Your task to perform on an android device: View the shopping cart on target.com. Search for usb-b on target.com, select the first entry, add it to the cart, then select checkout. Image 0: 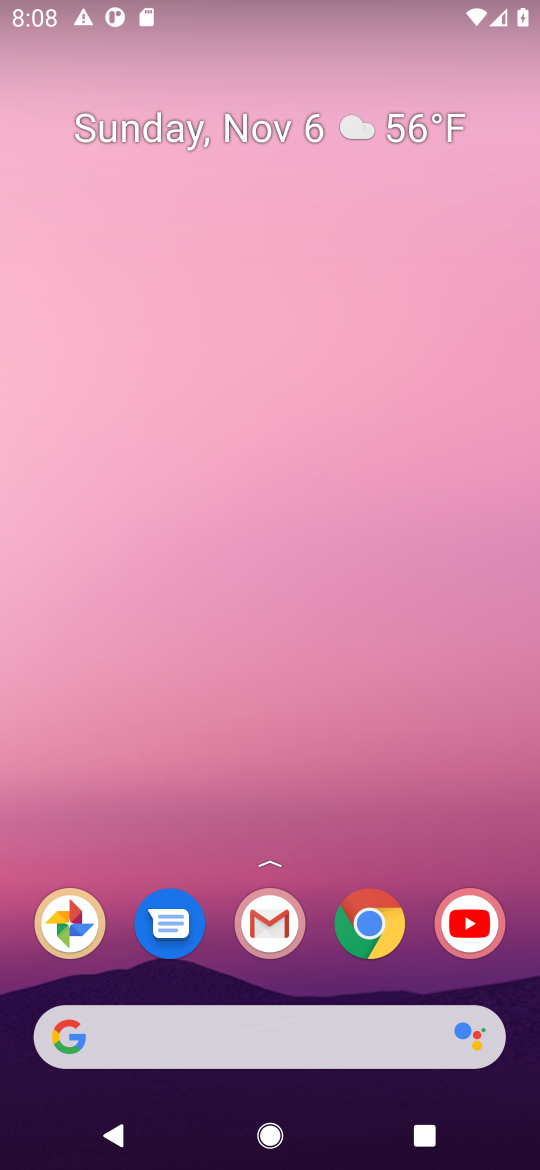
Step 0: click (366, 929)
Your task to perform on an android device: View the shopping cart on target.com. Search for usb-b on target.com, select the first entry, add it to the cart, then select checkout. Image 1: 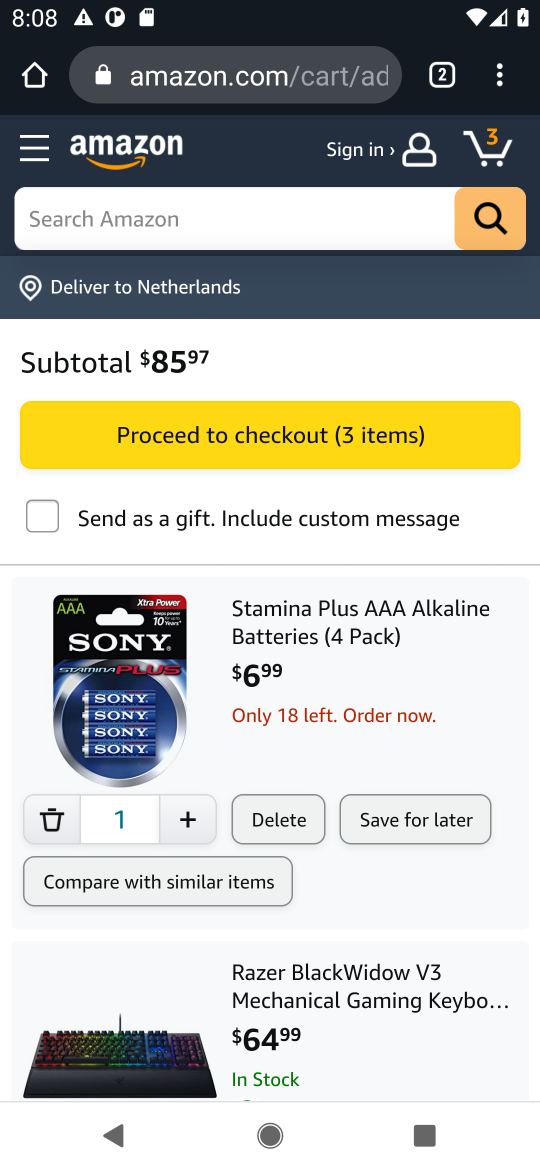
Step 1: click (275, 93)
Your task to perform on an android device: View the shopping cart on target.com. Search for usb-b on target.com, select the first entry, add it to the cart, then select checkout. Image 2: 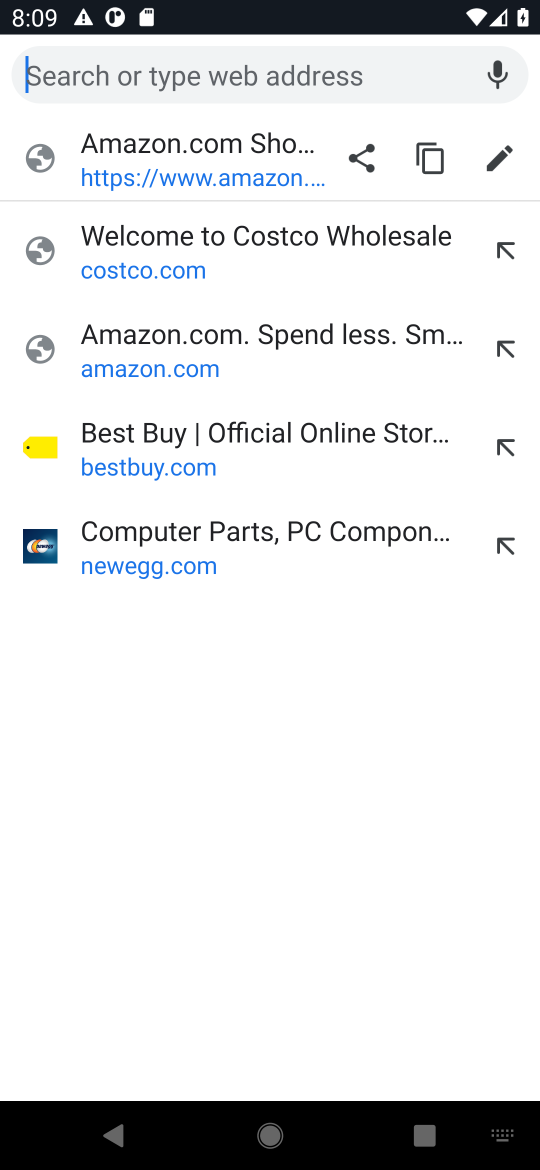
Step 2: type "target.com"
Your task to perform on an android device: View the shopping cart on target.com. Search for usb-b on target.com, select the first entry, add it to the cart, then select checkout. Image 3: 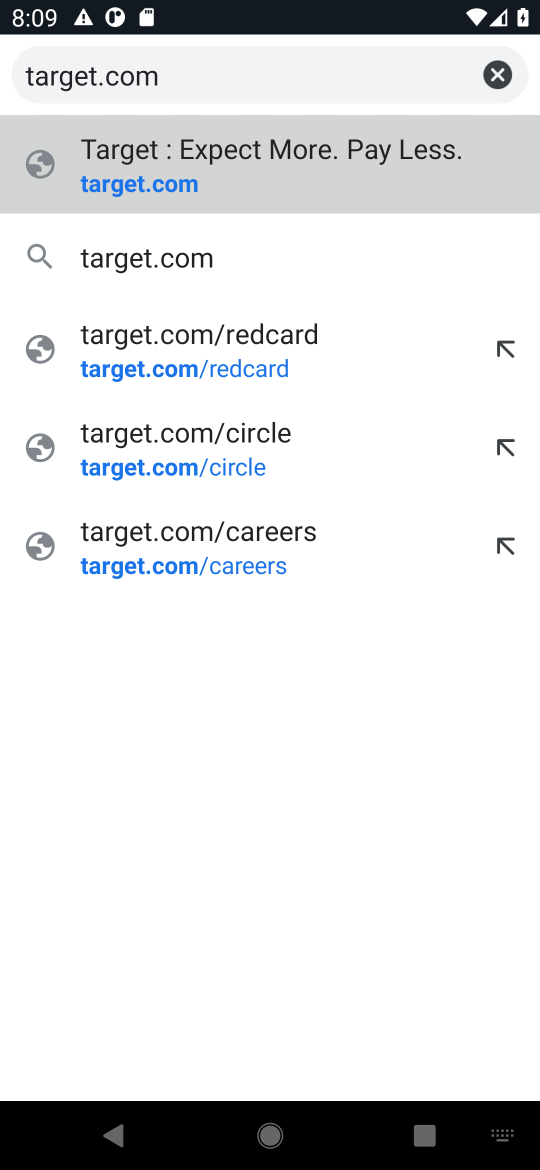
Step 3: click (161, 192)
Your task to perform on an android device: View the shopping cart on target.com. Search for usb-b on target.com, select the first entry, add it to the cart, then select checkout. Image 4: 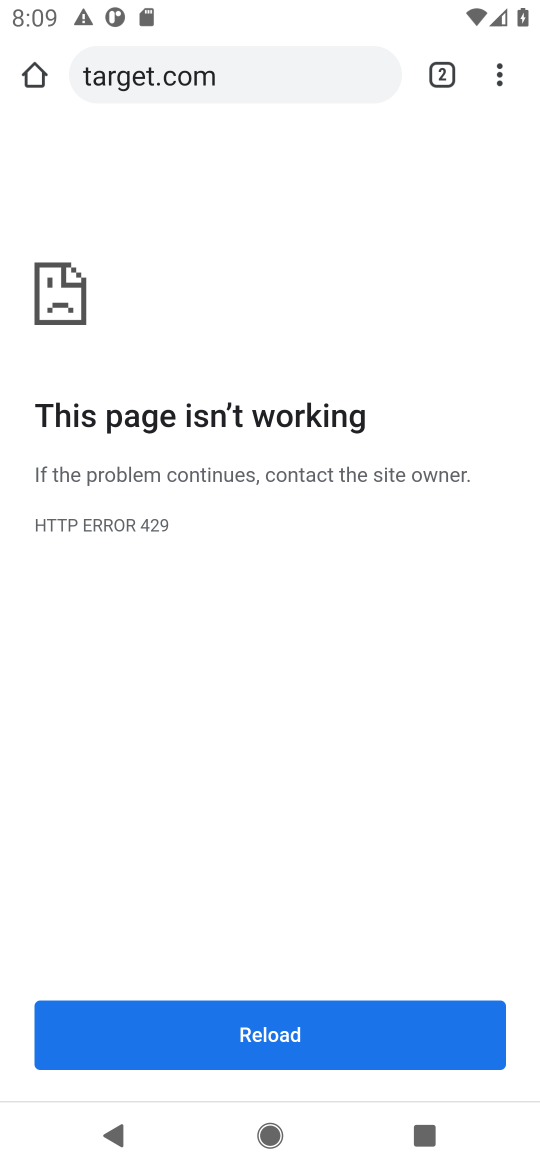
Step 4: click (271, 1043)
Your task to perform on an android device: View the shopping cart on target.com. Search for usb-b on target.com, select the first entry, add it to the cart, then select checkout. Image 5: 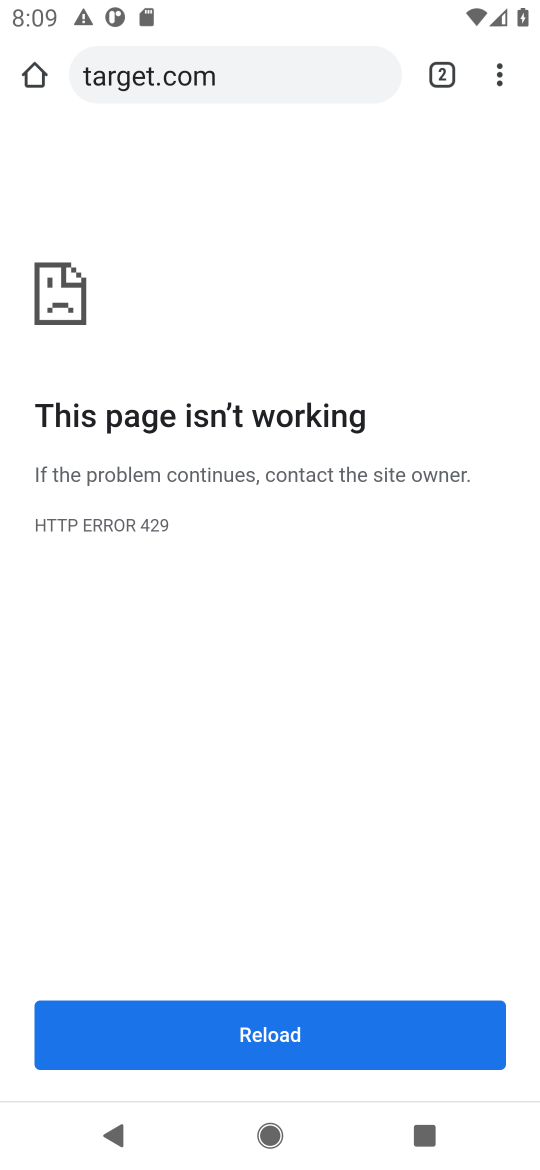
Step 5: task complete